Your task to perform on an android device: Open ESPN.com Image 0: 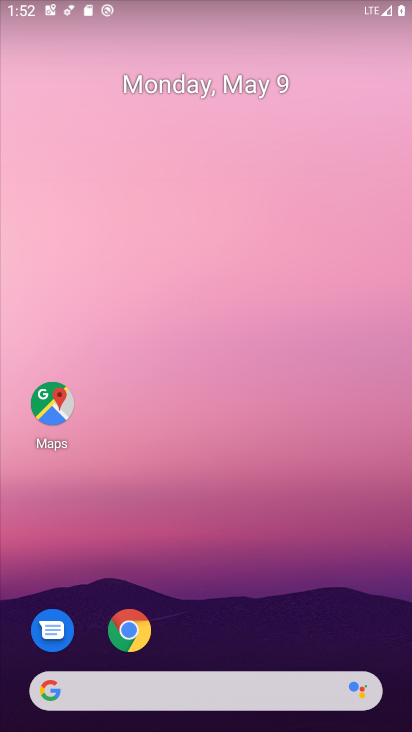
Step 0: click (133, 630)
Your task to perform on an android device: Open ESPN.com Image 1: 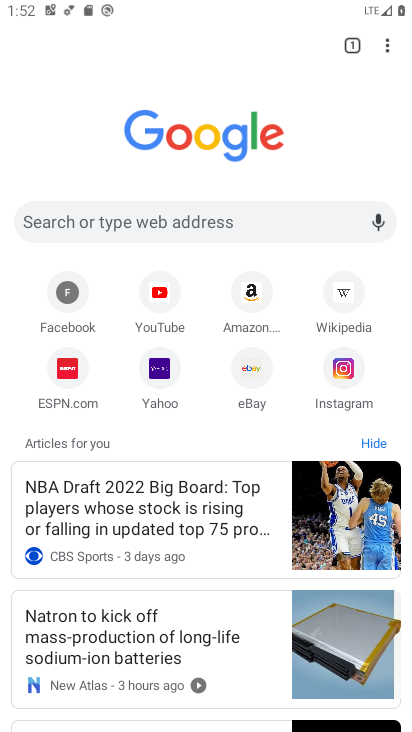
Step 1: click (77, 391)
Your task to perform on an android device: Open ESPN.com Image 2: 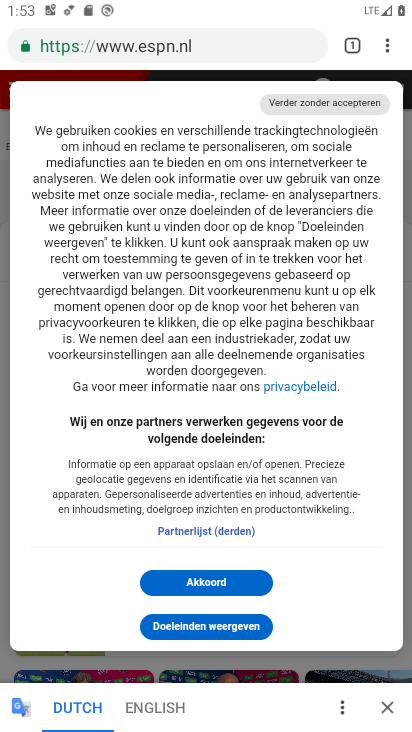
Step 2: task complete